Your task to perform on an android device: turn on javascript in the chrome app Image 0: 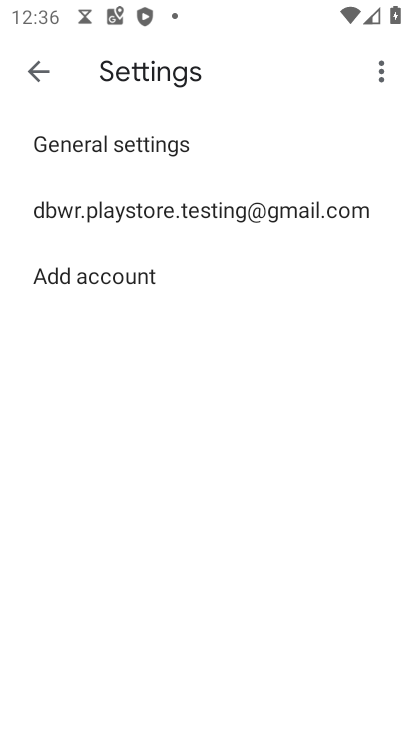
Step 0: press home button
Your task to perform on an android device: turn on javascript in the chrome app Image 1: 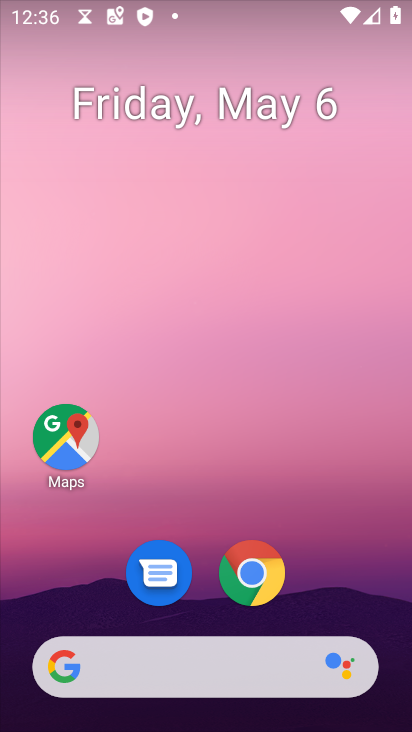
Step 1: drag from (295, 607) to (363, 209)
Your task to perform on an android device: turn on javascript in the chrome app Image 2: 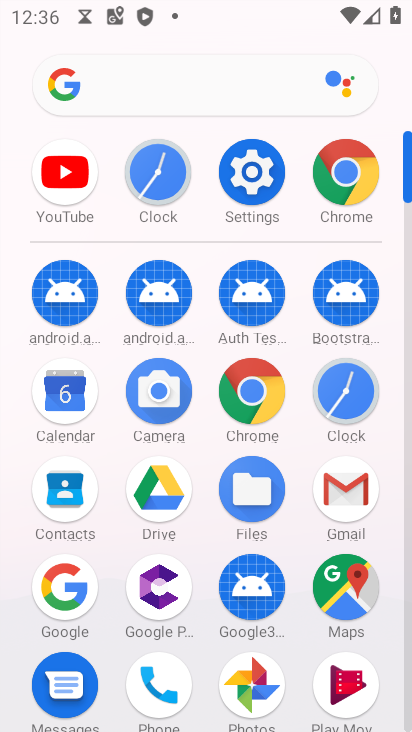
Step 2: click (350, 165)
Your task to perform on an android device: turn on javascript in the chrome app Image 3: 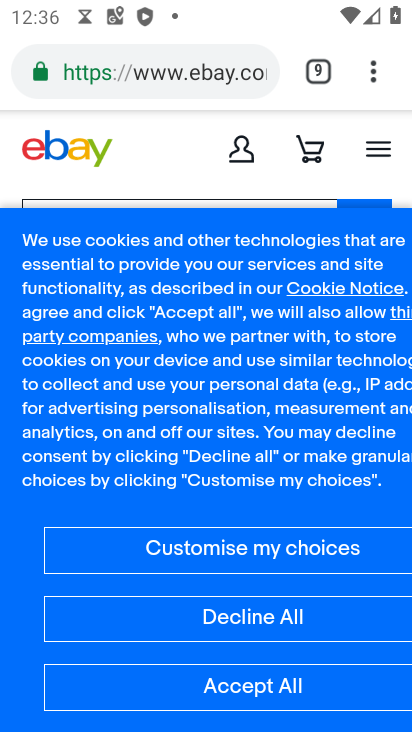
Step 3: click (367, 80)
Your task to perform on an android device: turn on javascript in the chrome app Image 4: 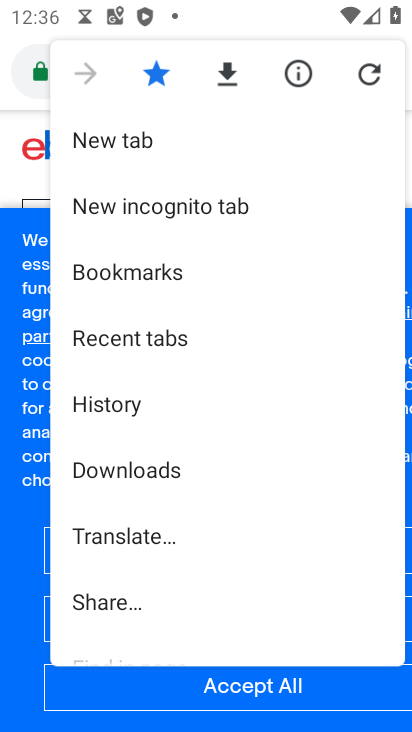
Step 4: drag from (166, 576) to (203, 232)
Your task to perform on an android device: turn on javascript in the chrome app Image 5: 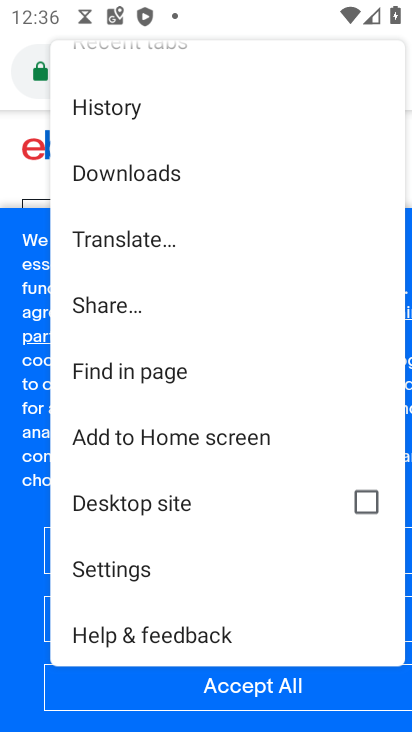
Step 5: click (122, 572)
Your task to perform on an android device: turn on javascript in the chrome app Image 6: 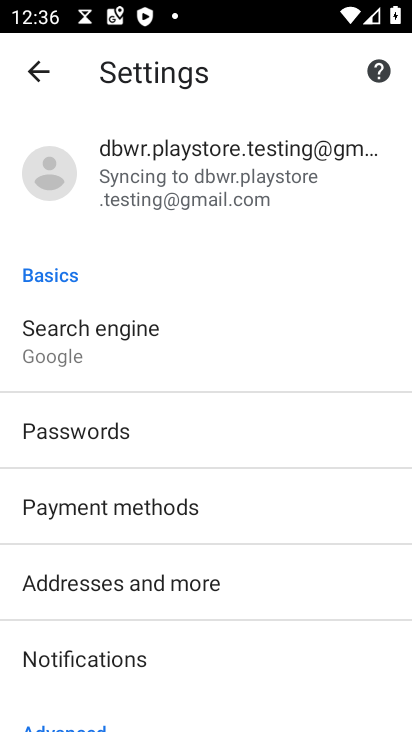
Step 6: drag from (203, 702) to (267, 299)
Your task to perform on an android device: turn on javascript in the chrome app Image 7: 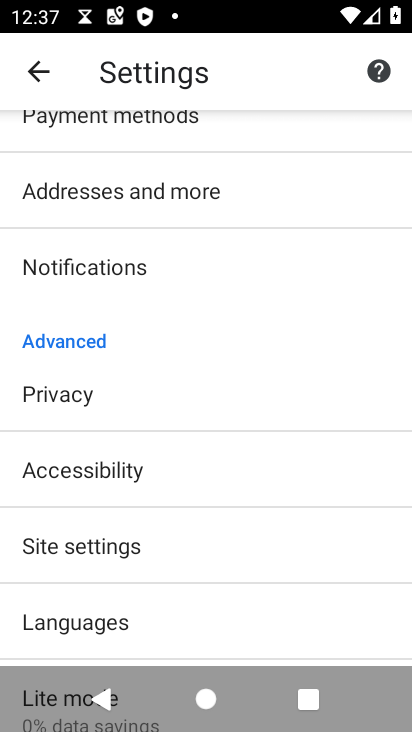
Step 7: click (129, 545)
Your task to perform on an android device: turn on javascript in the chrome app Image 8: 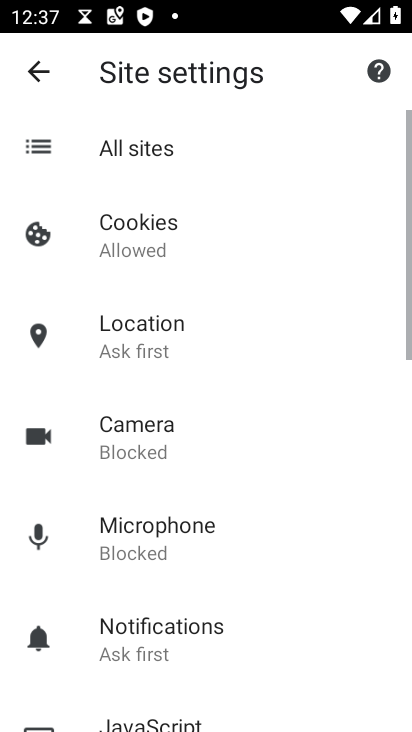
Step 8: drag from (179, 666) to (279, 202)
Your task to perform on an android device: turn on javascript in the chrome app Image 9: 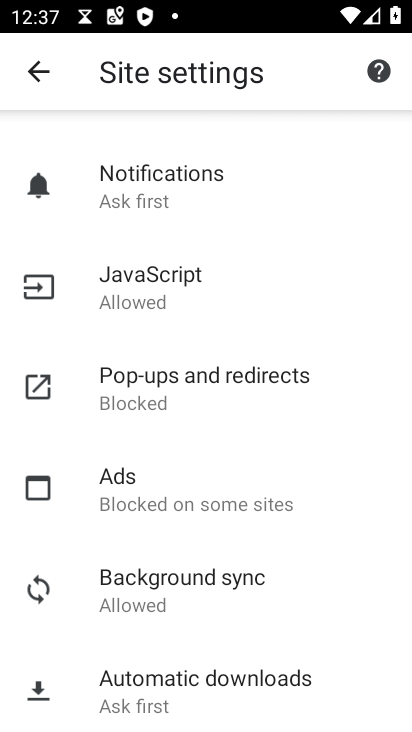
Step 9: click (170, 289)
Your task to perform on an android device: turn on javascript in the chrome app Image 10: 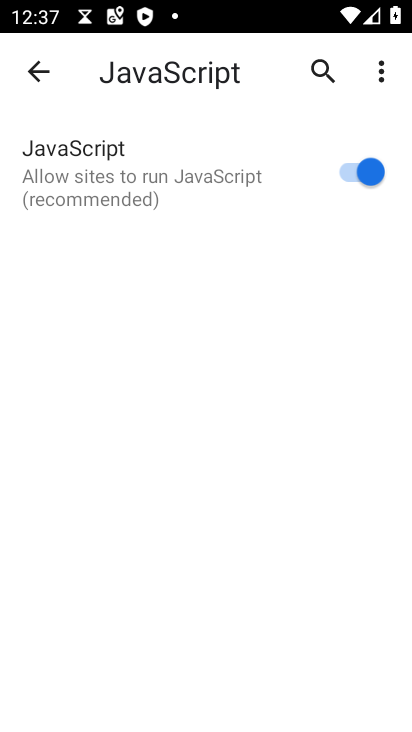
Step 10: task complete